Your task to perform on an android device: Go to notification settings Image 0: 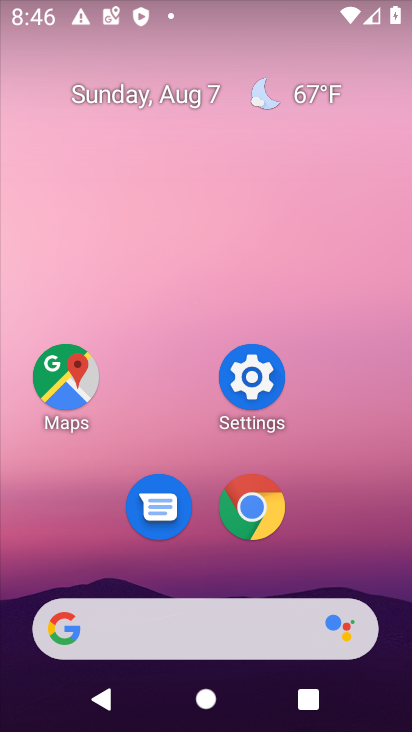
Step 0: click (252, 370)
Your task to perform on an android device: Go to notification settings Image 1: 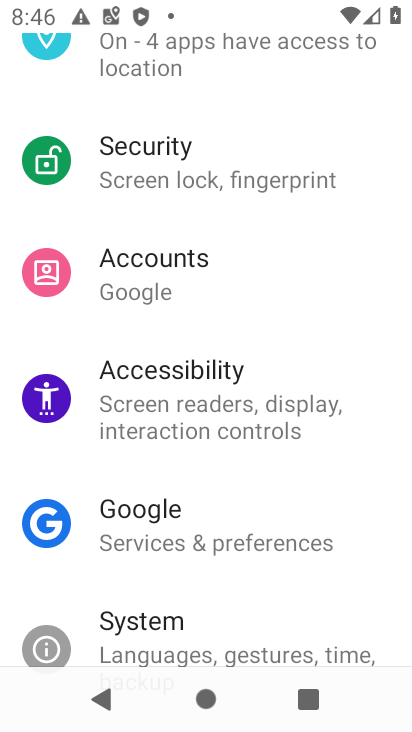
Step 1: drag from (317, 140) to (334, 631)
Your task to perform on an android device: Go to notification settings Image 2: 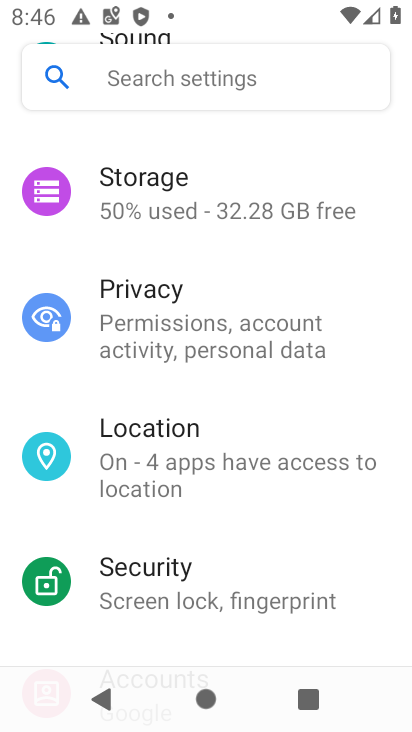
Step 2: drag from (296, 150) to (279, 694)
Your task to perform on an android device: Go to notification settings Image 3: 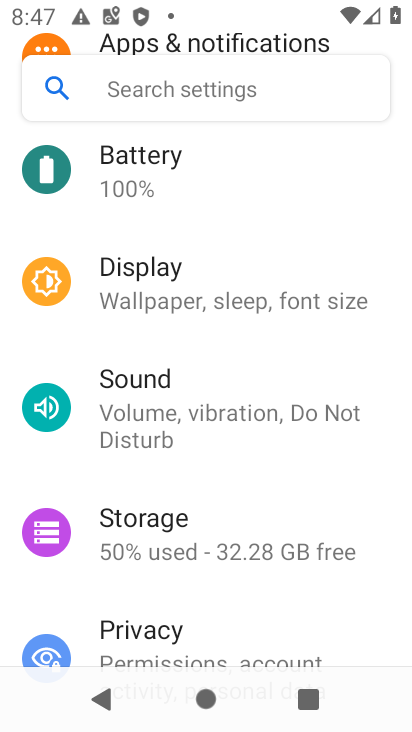
Step 3: drag from (276, 182) to (249, 701)
Your task to perform on an android device: Go to notification settings Image 4: 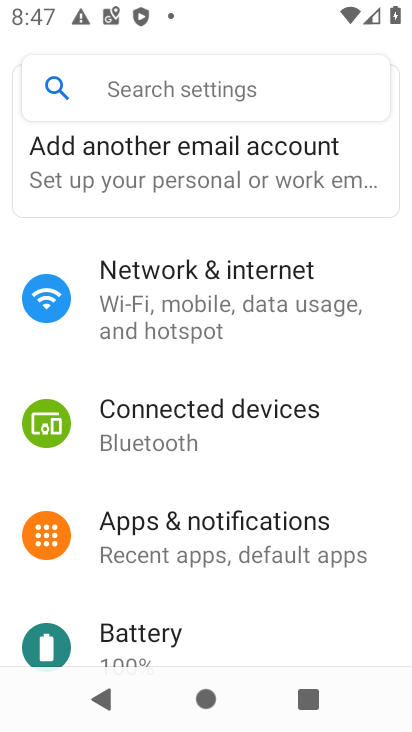
Step 4: click (222, 537)
Your task to perform on an android device: Go to notification settings Image 5: 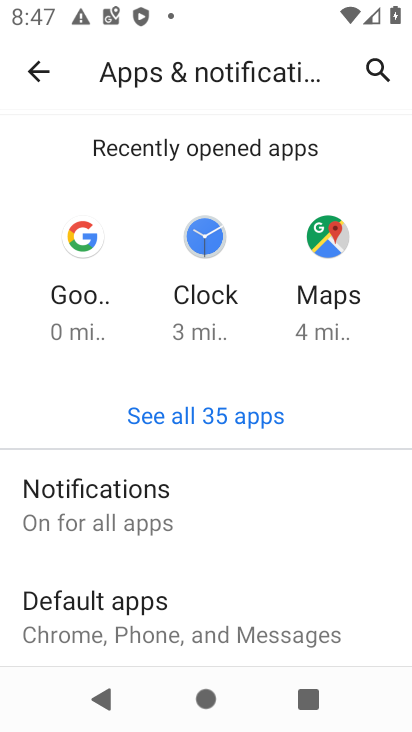
Step 5: click (127, 511)
Your task to perform on an android device: Go to notification settings Image 6: 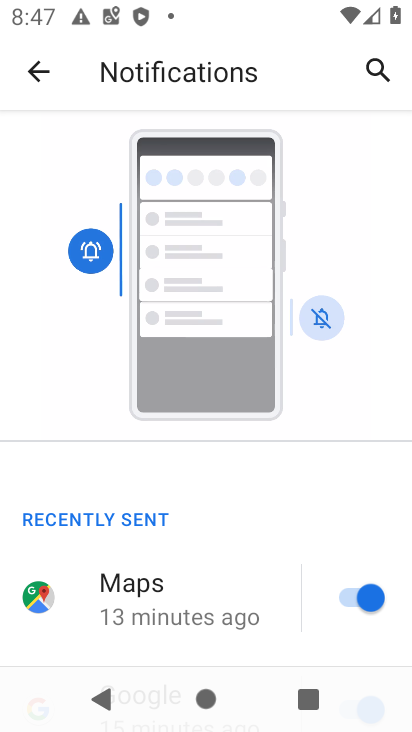
Step 6: task complete